Your task to perform on an android device: Check the news Image 0: 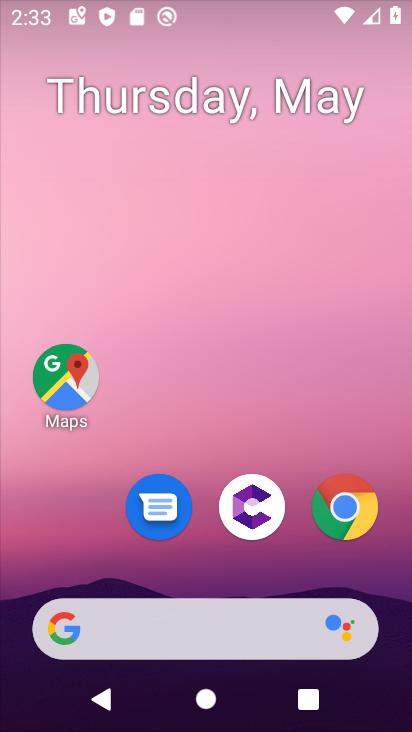
Step 0: drag from (236, 564) to (224, 55)
Your task to perform on an android device: Check the news Image 1: 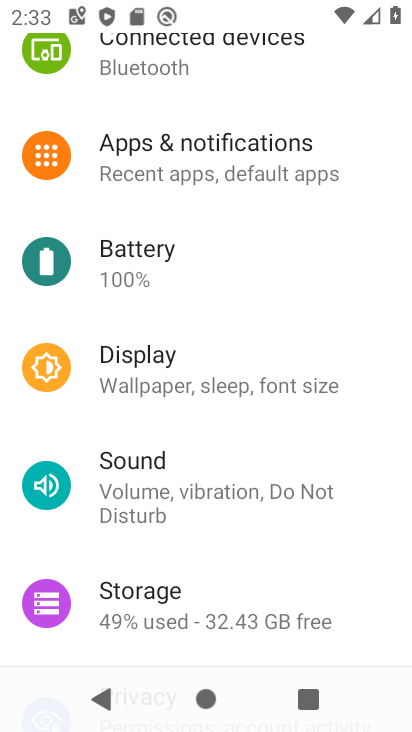
Step 1: click (217, 131)
Your task to perform on an android device: Check the news Image 2: 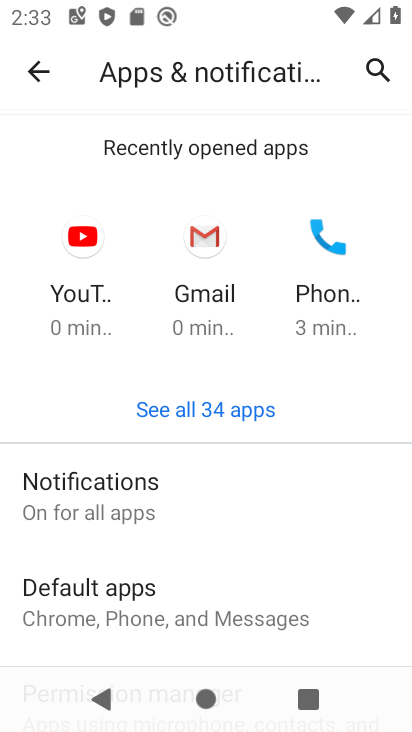
Step 2: click (111, 503)
Your task to perform on an android device: Check the news Image 3: 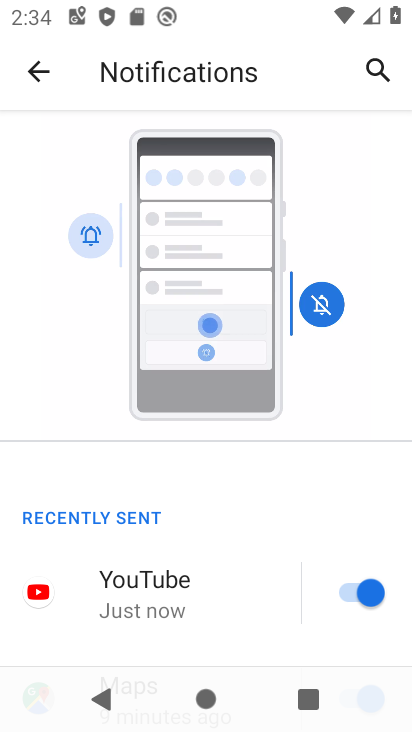
Step 3: drag from (258, 557) to (255, 388)
Your task to perform on an android device: Check the news Image 4: 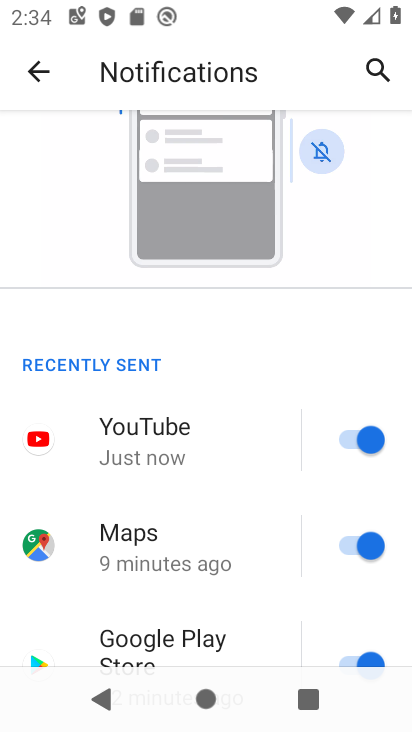
Step 4: click (350, 438)
Your task to perform on an android device: Check the news Image 5: 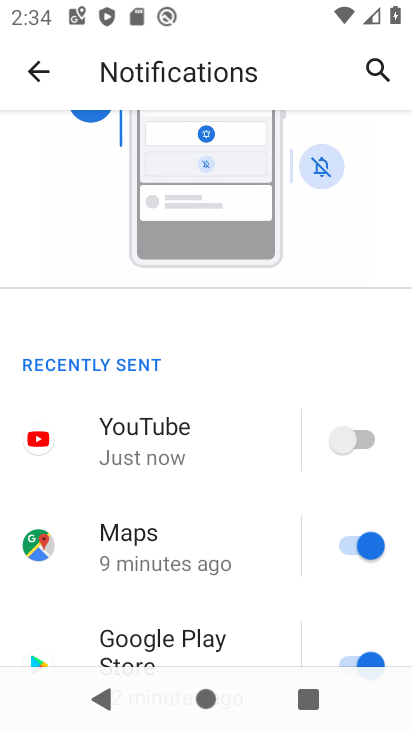
Step 5: task complete